Your task to perform on an android device: check storage Image 0: 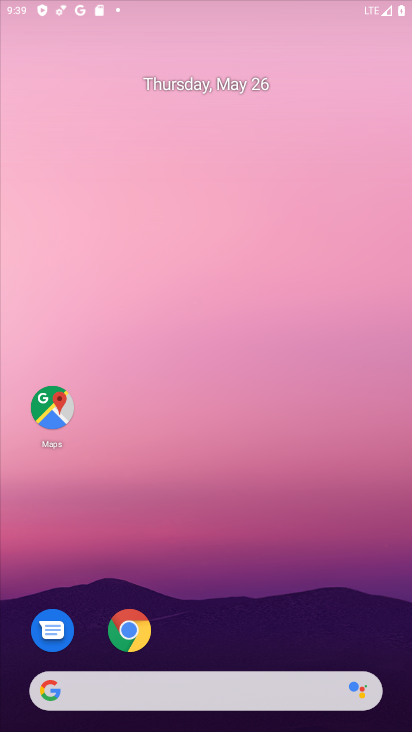
Step 0: drag from (220, 653) to (209, 48)
Your task to perform on an android device: check storage Image 1: 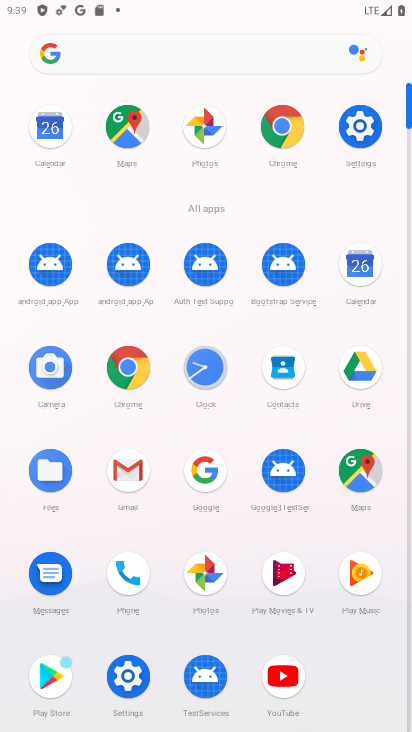
Step 1: click (354, 133)
Your task to perform on an android device: check storage Image 2: 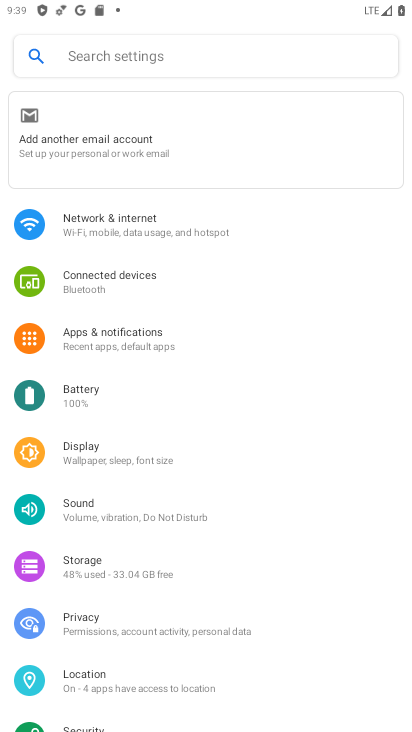
Step 2: click (111, 558)
Your task to perform on an android device: check storage Image 3: 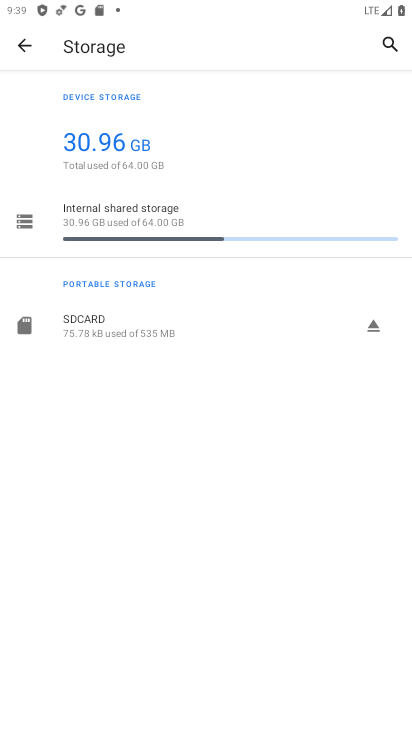
Step 3: click (137, 215)
Your task to perform on an android device: check storage Image 4: 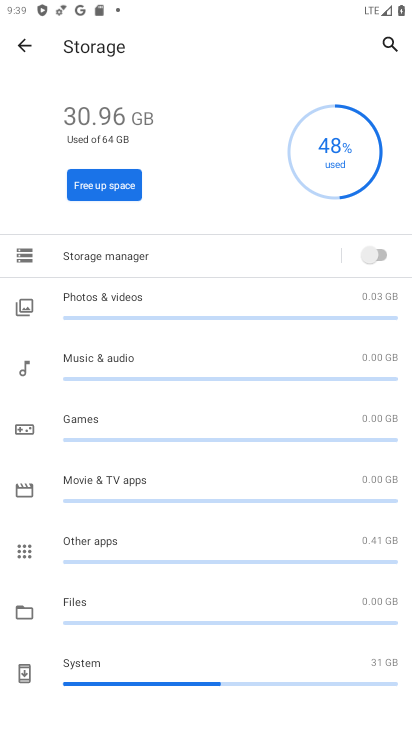
Step 4: task complete